Your task to perform on an android device: Go to privacy settings Image 0: 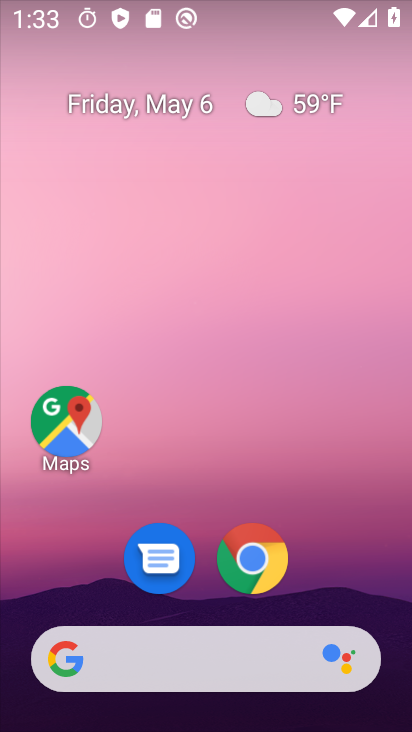
Step 0: drag from (226, 710) to (229, 397)
Your task to perform on an android device: Go to privacy settings Image 1: 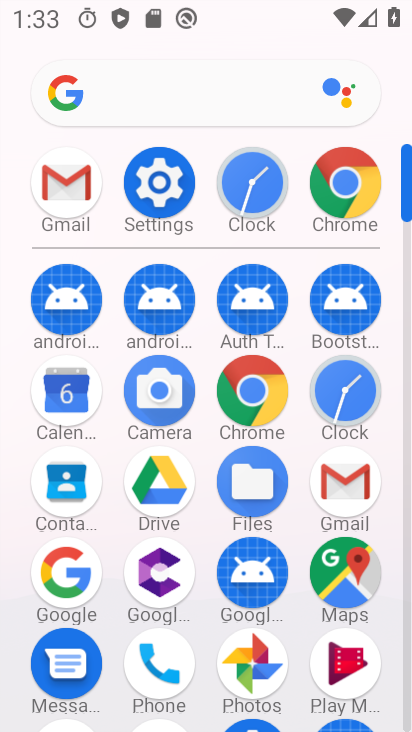
Step 1: click (161, 189)
Your task to perform on an android device: Go to privacy settings Image 2: 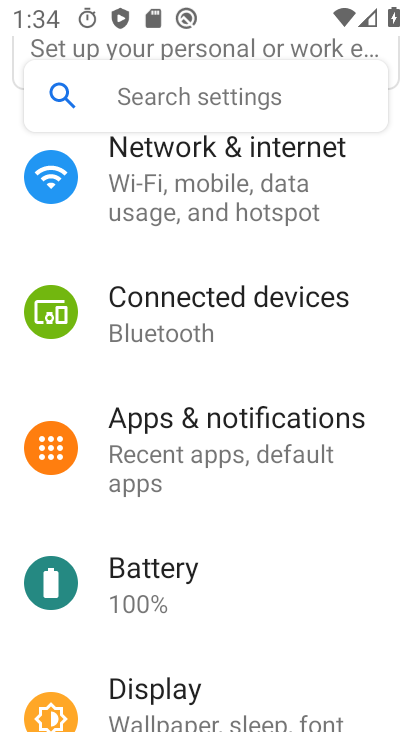
Step 2: drag from (197, 674) to (203, 265)
Your task to perform on an android device: Go to privacy settings Image 3: 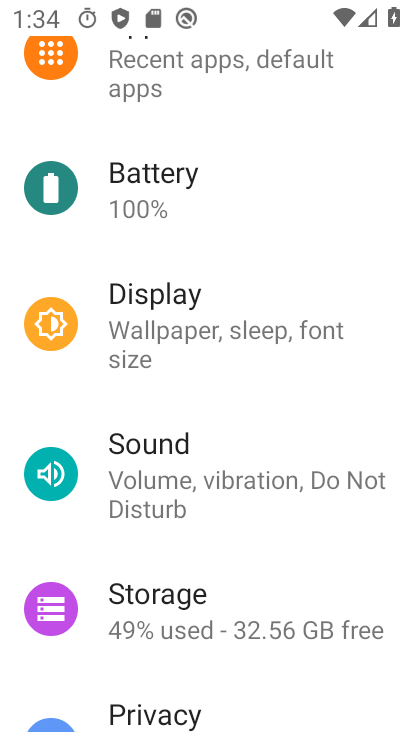
Step 3: drag from (200, 676) to (208, 374)
Your task to perform on an android device: Go to privacy settings Image 4: 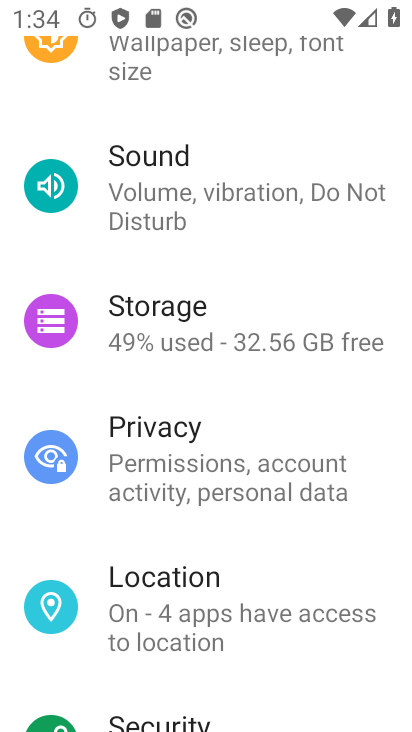
Step 4: click (178, 473)
Your task to perform on an android device: Go to privacy settings Image 5: 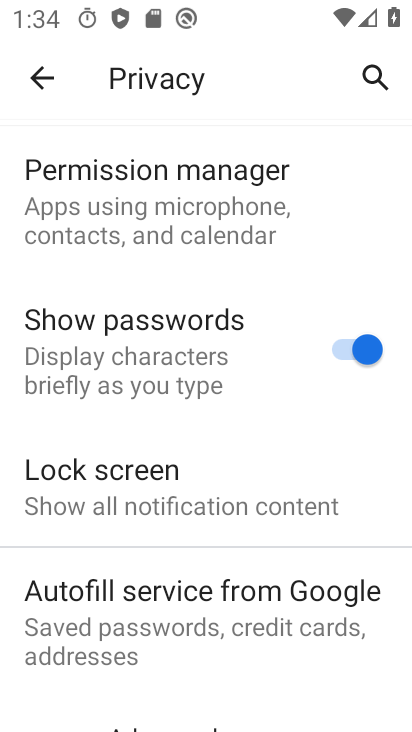
Step 5: task complete